Your task to perform on an android device: Search for Italian restaurants on Maps Image 0: 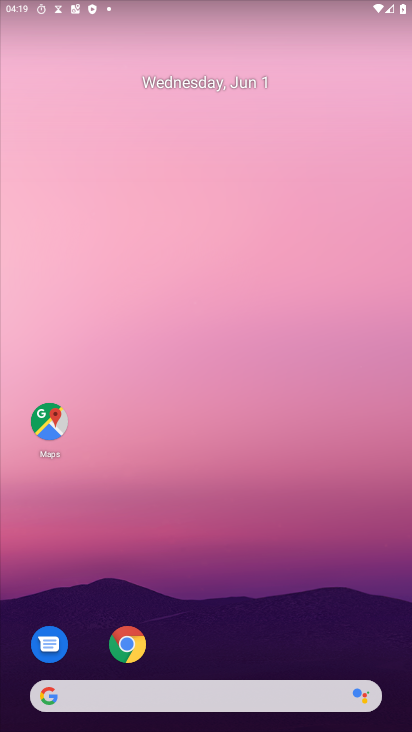
Step 0: press home button
Your task to perform on an android device: Search for Italian restaurants on Maps Image 1: 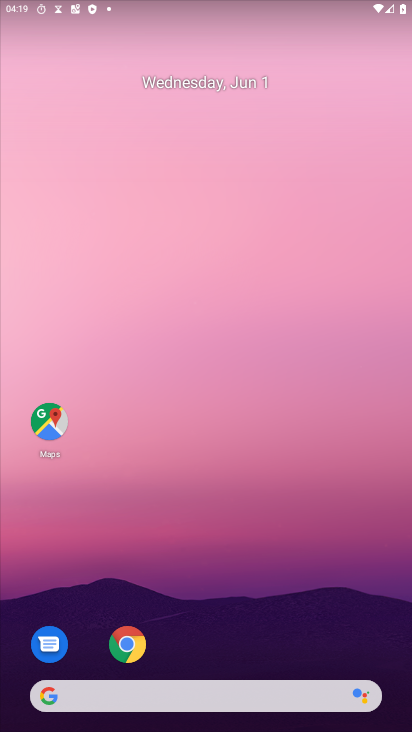
Step 1: click (47, 427)
Your task to perform on an android device: Search for Italian restaurants on Maps Image 2: 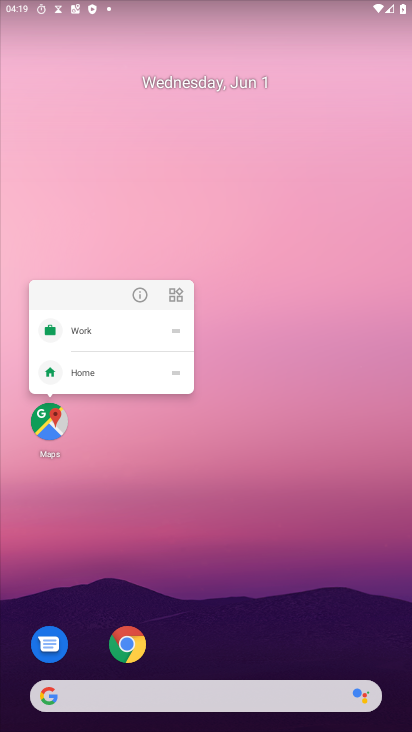
Step 2: click (50, 420)
Your task to perform on an android device: Search for Italian restaurants on Maps Image 3: 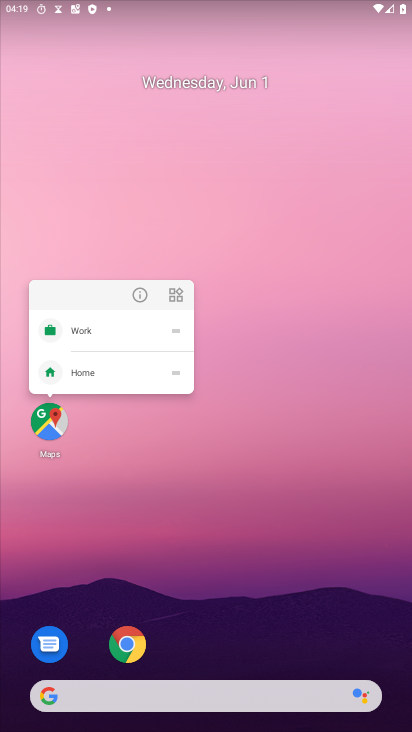
Step 3: click (50, 420)
Your task to perform on an android device: Search for Italian restaurants on Maps Image 4: 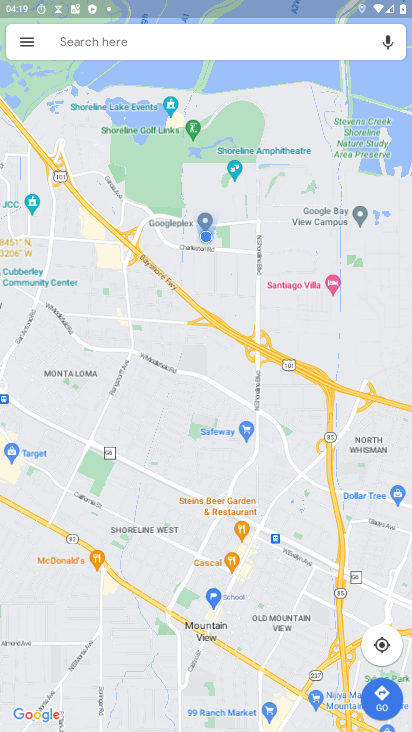
Step 4: click (143, 47)
Your task to perform on an android device: Search for Italian restaurants on Maps Image 5: 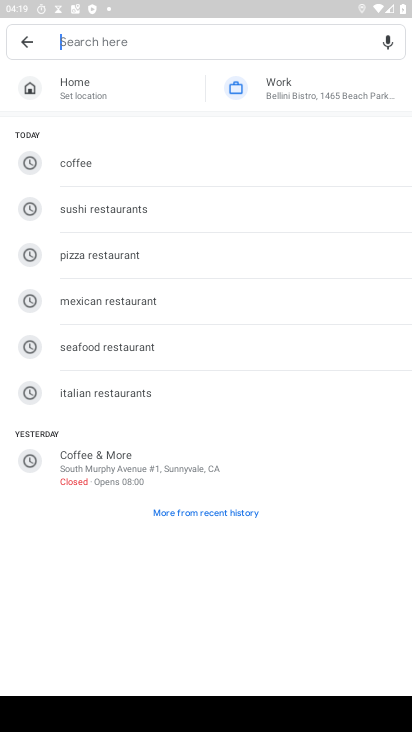
Step 5: click (115, 394)
Your task to perform on an android device: Search for Italian restaurants on Maps Image 6: 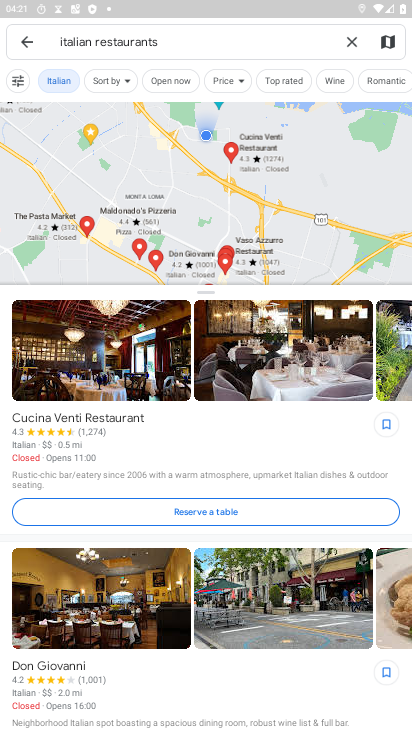
Step 6: task complete